Your task to perform on an android device: toggle priority inbox in the gmail app Image 0: 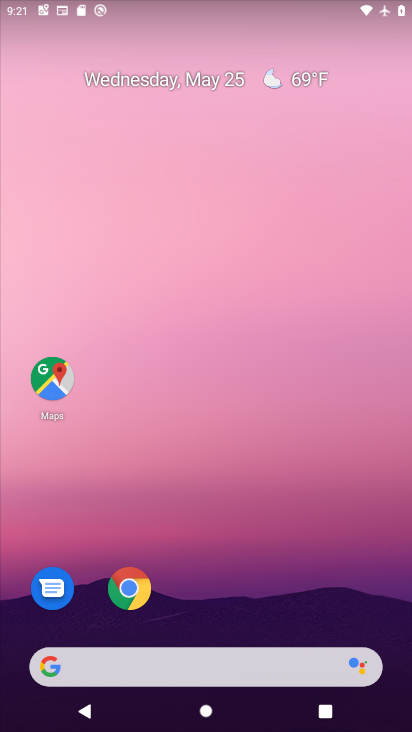
Step 0: drag from (386, 612) to (348, 158)
Your task to perform on an android device: toggle priority inbox in the gmail app Image 1: 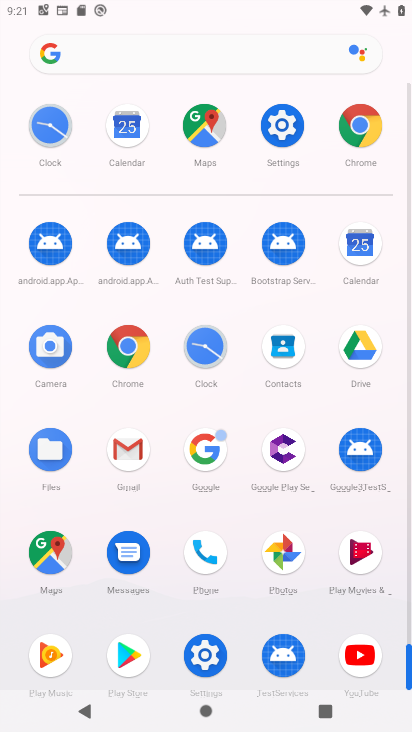
Step 1: click (133, 458)
Your task to perform on an android device: toggle priority inbox in the gmail app Image 2: 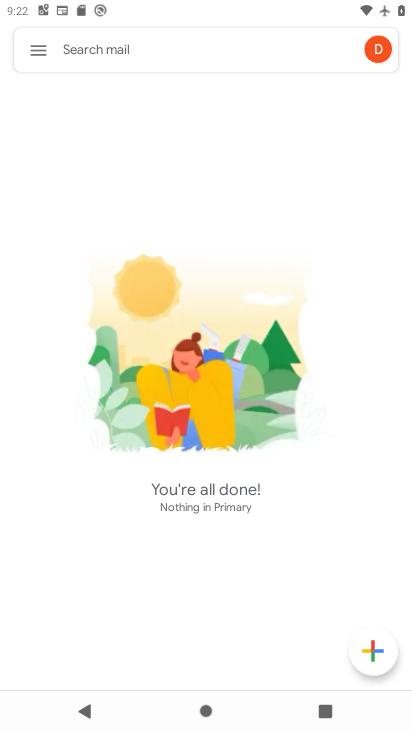
Step 2: click (39, 48)
Your task to perform on an android device: toggle priority inbox in the gmail app Image 3: 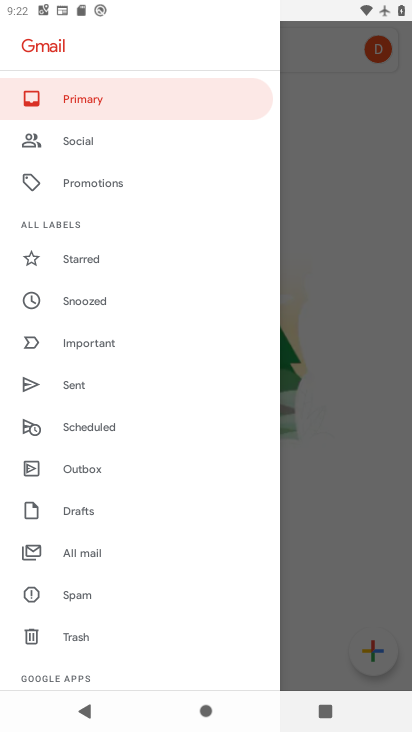
Step 3: drag from (200, 526) to (227, 393)
Your task to perform on an android device: toggle priority inbox in the gmail app Image 4: 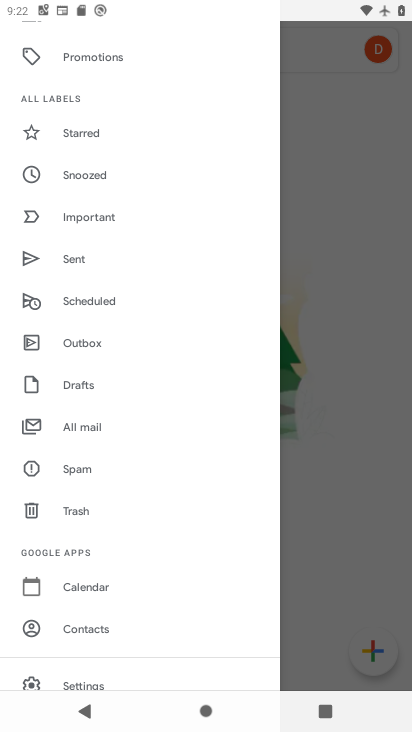
Step 4: drag from (224, 586) to (235, 403)
Your task to perform on an android device: toggle priority inbox in the gmail app Image 5: 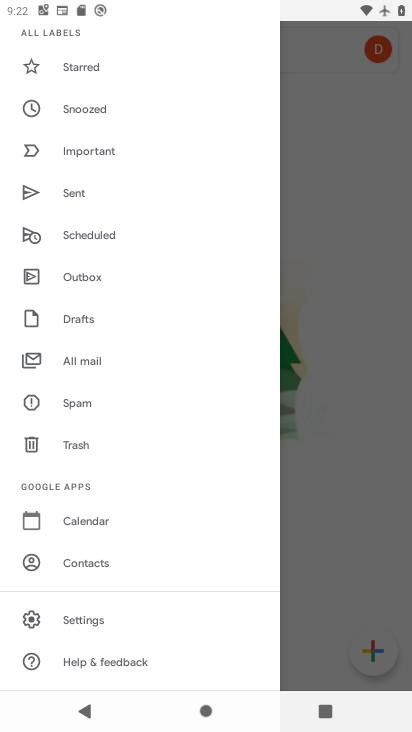
Step 5: click (87, 623)
Your task to perform on an android device: toggle priority inbox in the gmail app Image 6: 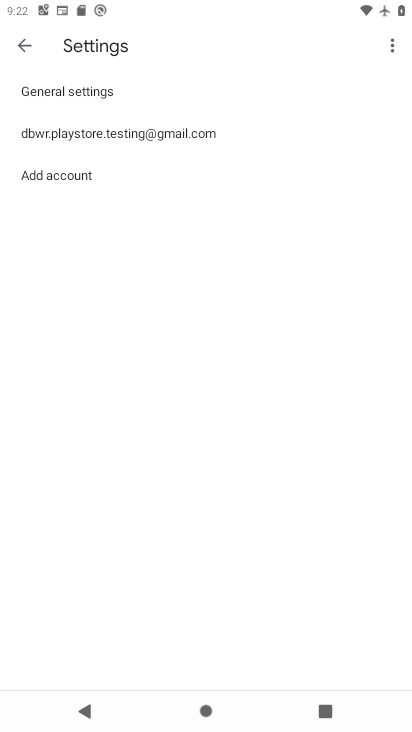
Step 6: click (267, 149)
Your task to perform on an android device: toggle priority inbox in the gmail app Image 7: 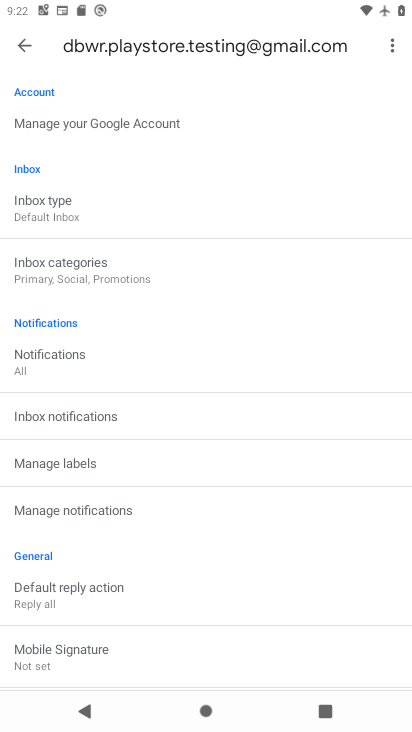
Step 7: drag from (283, 579) to (316, 446)
Your task to perform on an android device: toggle priority inbox in the gmail app Image 8: 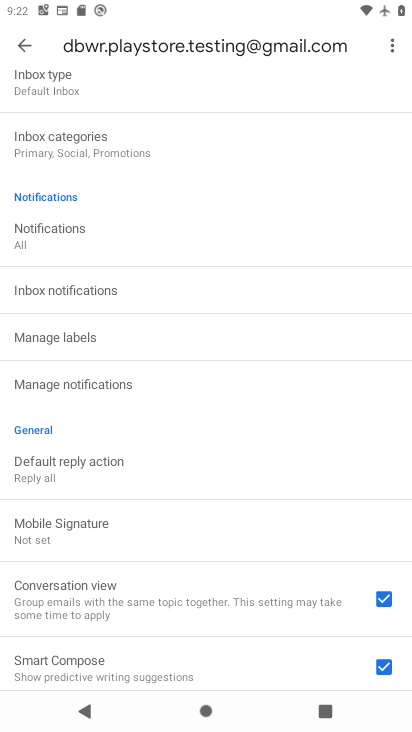
Step 8: drag from (312, 623) to (318, 469)
Your task to perform on an android device: toggle priority inbox in the gmail app Image 9: 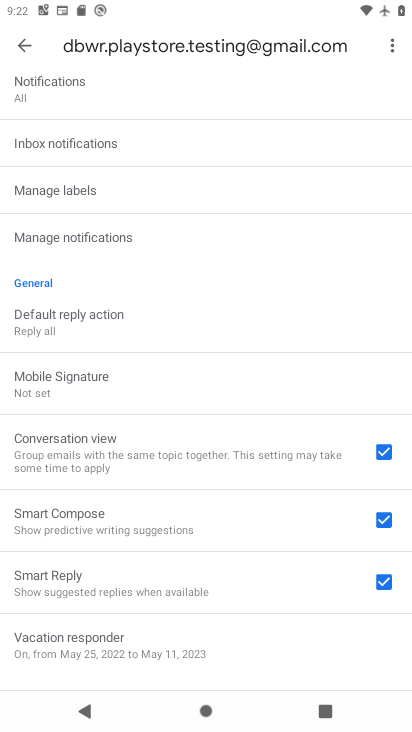
Step 9: drag from (304, 619) to (308, 436)
Your task to perform on an android device: toggle priority inbox in the gmail app Image 10: 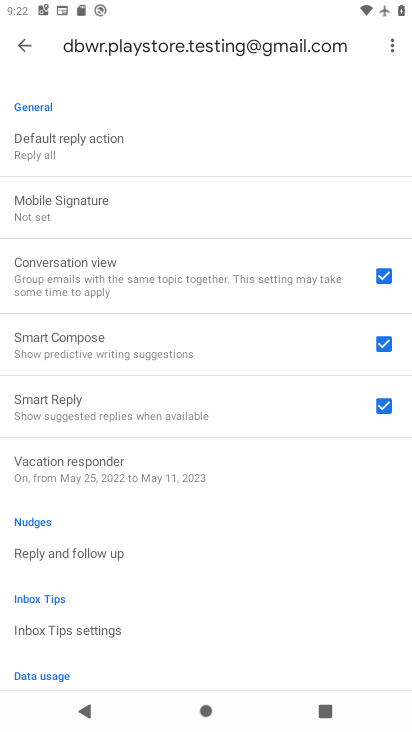
Step 10: drag from (307, 603) to (294, 372)
Your task to perform on an android device: toggle priority inbox in the gmail app Image 11: 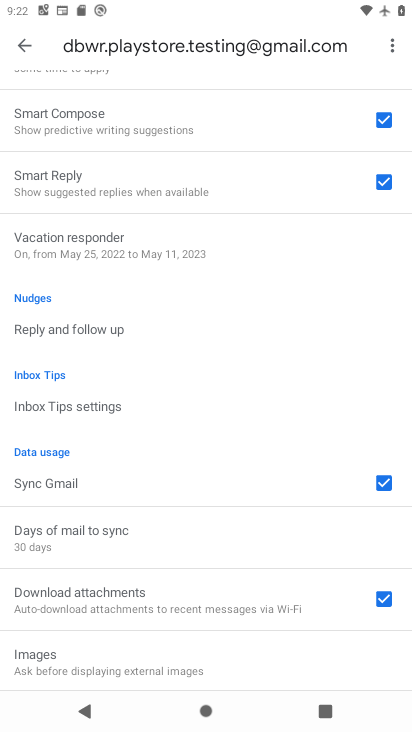
Step 11: drag from (282, 233) to (270, 355)
Your task to perform on an android device: toggle priority inbox in the gmail app Image 12: 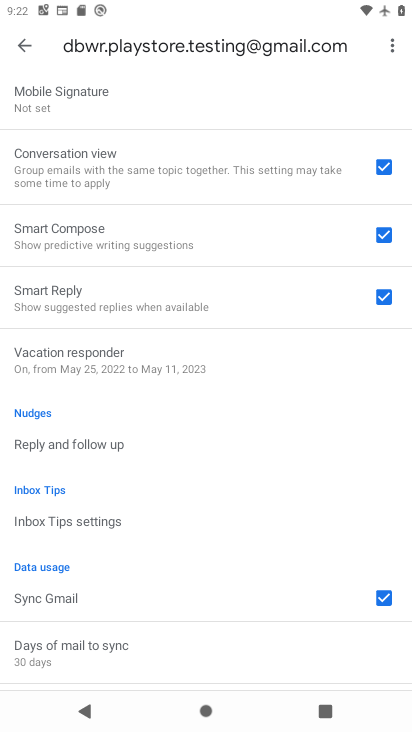
Step 12: drag from (278, 235) to (282, 352)
Your task to perform on an android device: toggle priority inbox in the gmail app Image 13: 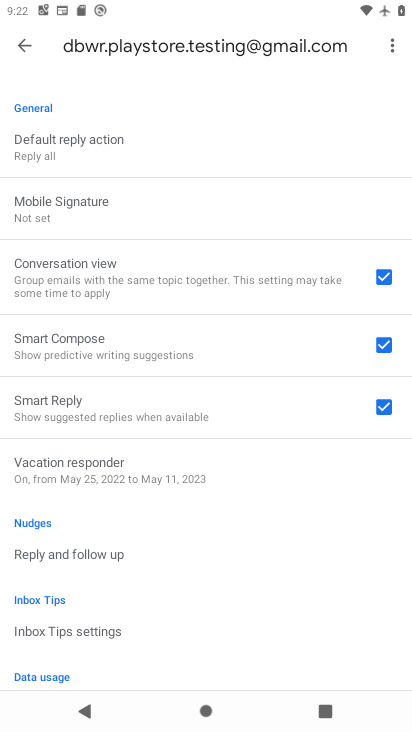
Step 13: drag from (293, 181) to (298, 304)
Your task to perform on an android device: toggle priority inbox in the gmail app Image 14: 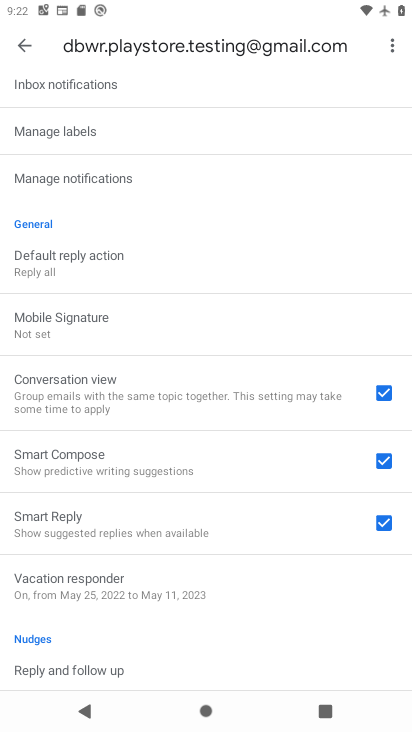
Step 14: drag from (289, 179) to (267, 308)
Your task to perform on an android device: toggle priority inbox in the gmail app Image 15: 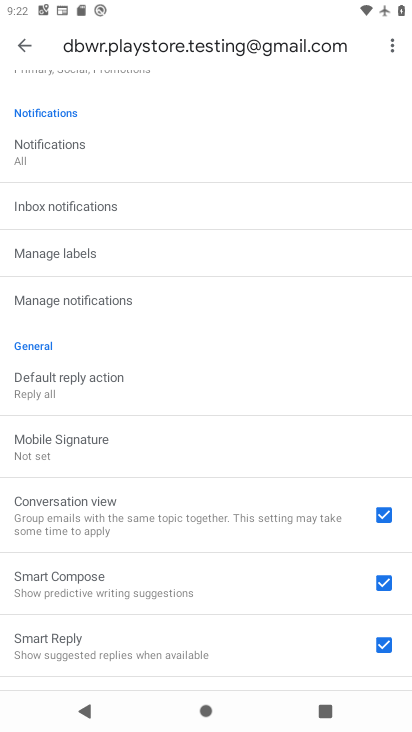
Step 15: drag from (258, 167) to (258, 305)
Your task to perform on an android device: toggle priority inbox in the gmail app Image 16: 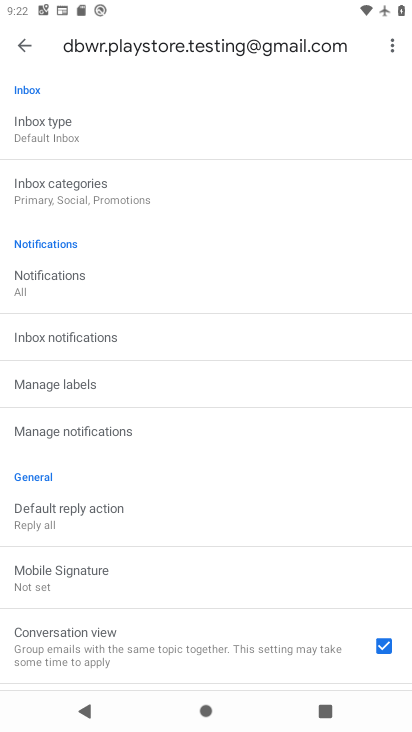
Step 16: click (86, 122)
Your task to perform on an android device: toggle priority inbox in the gmail app Image 17: 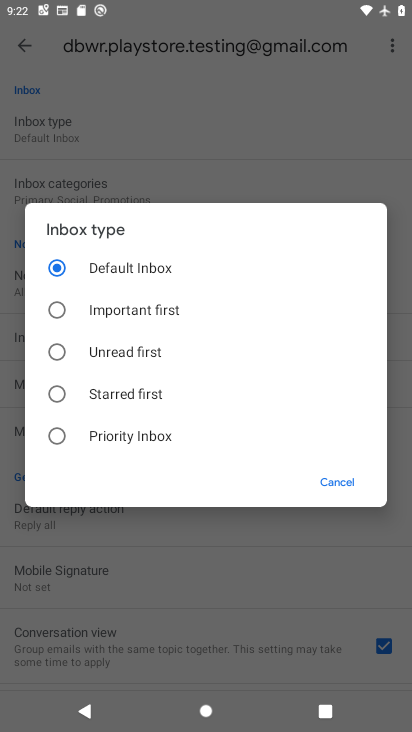
Step 17: click (180, 433)
Your task to perform on an android device: toggle priority inbox in the gmail app Image 18: 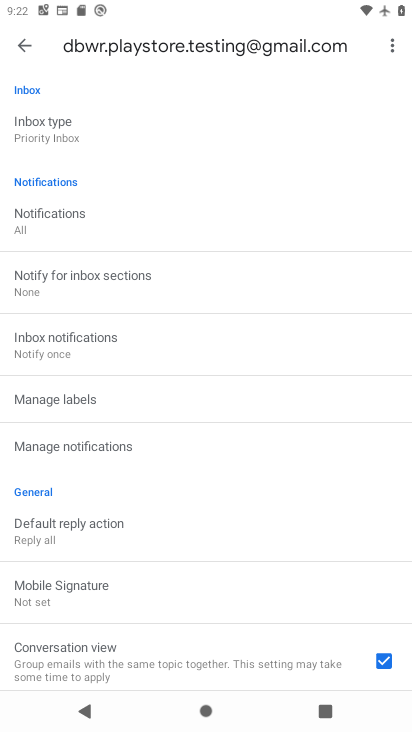
Step 18: task complete